Your task to perform on an android device: turn on translation in the chrome app Image 0: 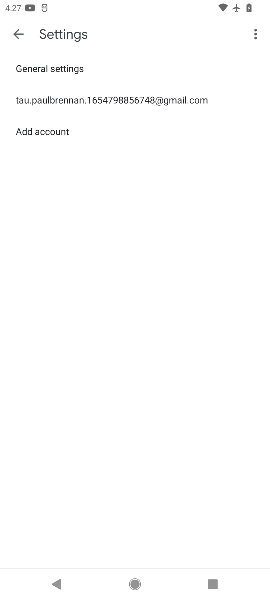
Step 0: press home button
Your task to perform on an android device: turn on translation in the chrome app Image 1: 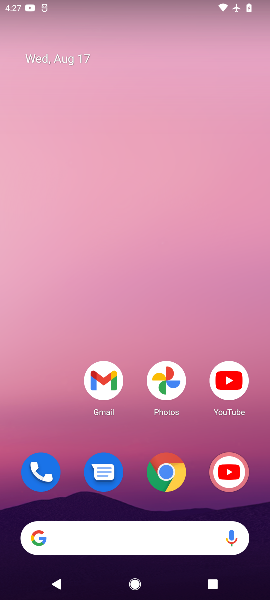
Step 1: click (157, 475)
Your task to perform on an android device: turn on translation in the chrome app Image 2: 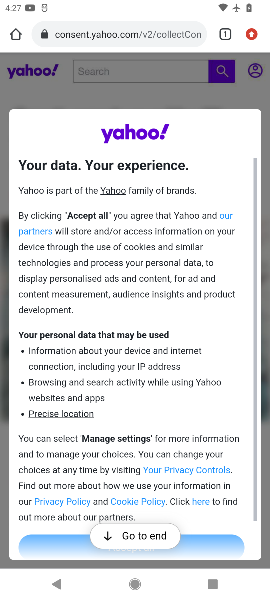
Step 2: click (245, 37)
Your task to perform on an android device: turn on translation in the chrome app Image 3: 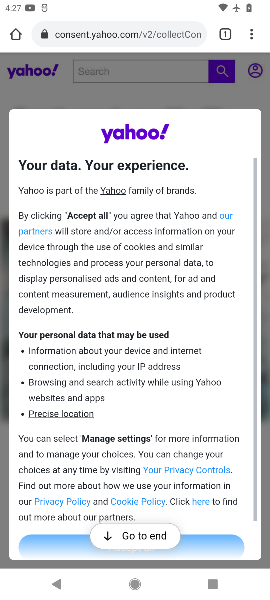
Step 3: click (250, 36)
Your task to perform on an android device: turn on translation in the chrome app Image 4: 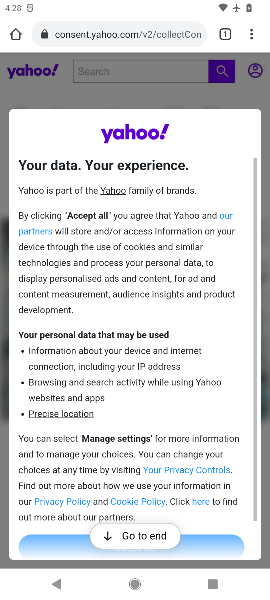
Step 4: click (251, 32)
Your task to perform on an android device: turn on translation in the chrome app Image 5: 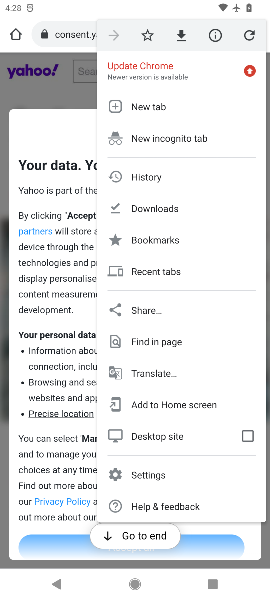
Step 5: click (146, 474)
Your task to perform on an android device: turn on translation in the chrome app Image 6: 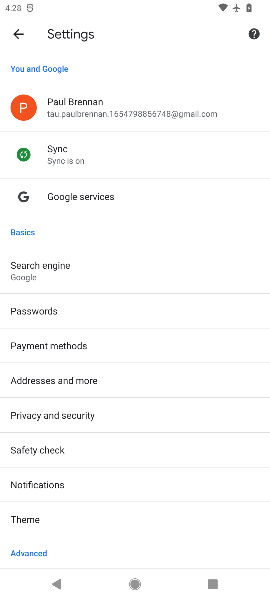
Step 6: drag from (73, 461) to (101, 253)
Your task to perform on an android device: turn on translation in the chrome app Image 7: 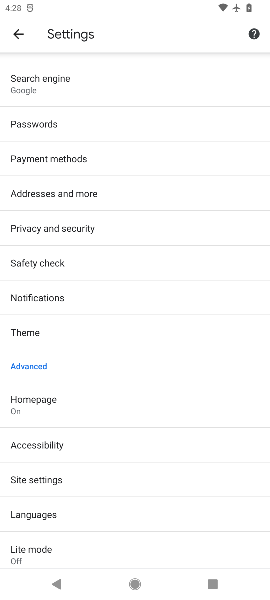
Step 7: drag from (82, 535) to (109, 368)
Your task to perform on an android device: turn on translation in the chrome app Image 8: 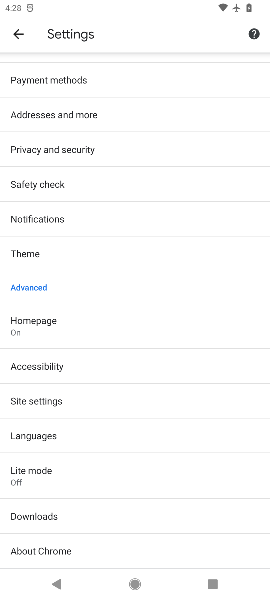
Step 8: click (53, 435)
Your task to perform on an android device: turn on translation in the chrome app Image 9: 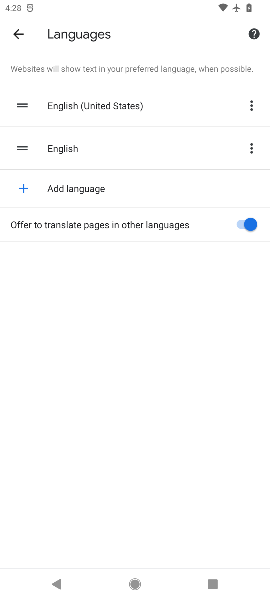
Step 9: task complete